Your task to perform on an android device: What's the weather going to be this weekend? Image 0: 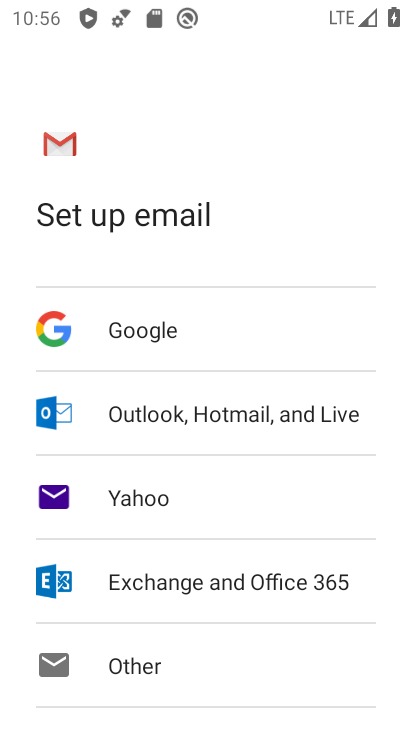
Step 0: press home button
Your task to perform on an android device: What's the weather going to be this weekend? Image 1: 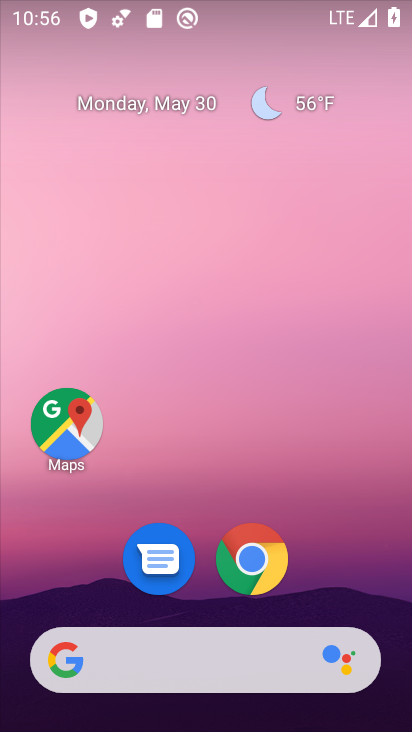
Step 1: drag from (375, 581) to (259, 66)
Your task to perform on an android device: What's the weather going to be this weekend? Image 2: 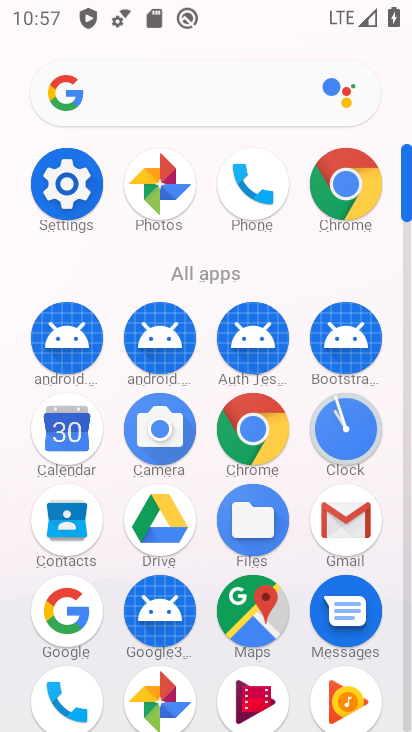
Step 2: click (72, 427)
Your task to perform on an android device: What's the weather going to be this weekend? Image 3: 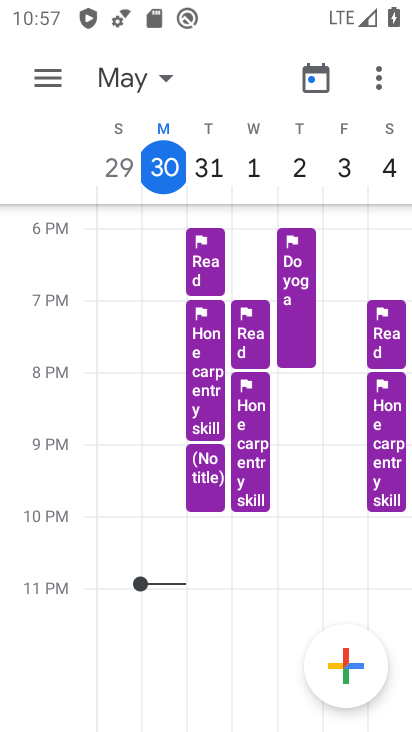
Step 3: press home button
Your task to perform on an android device: What's the weather going to be this weekend? Image 4: 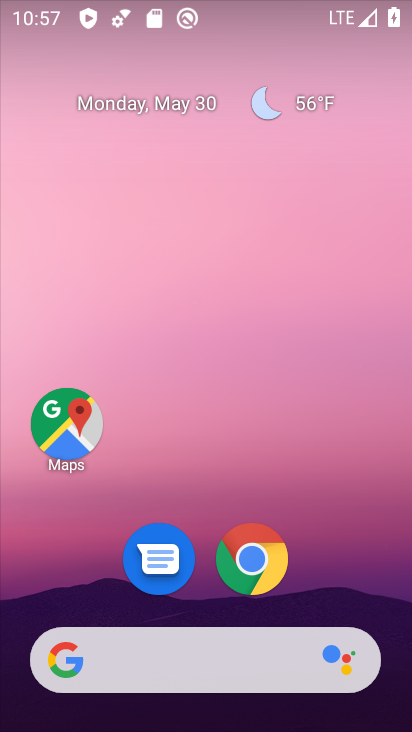
Step 4: click (272, 563)
Your task to perform on an android device: What's the weather going to be this weekend? Image 5: 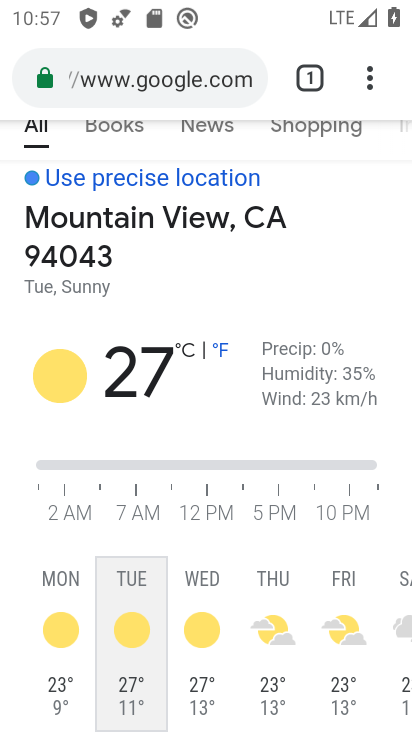
Step 5: click (212, 88)
Your task to perform on an android device: What's the weather going to be this weekend? Image 6: 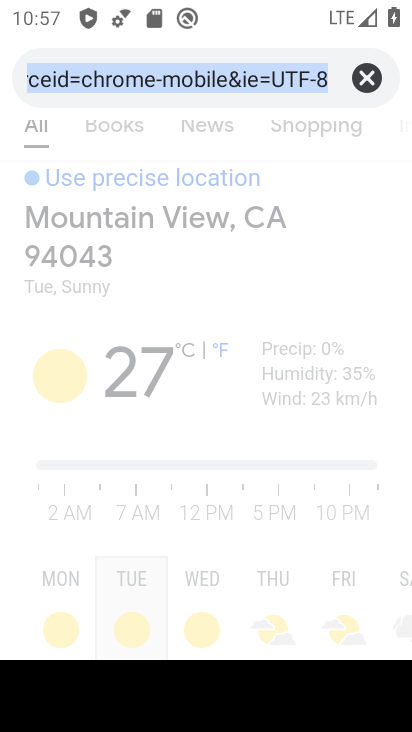
Step 6: type "What's the weather going to be this weekend?"
Your task to perform on an android device: What's the weather going to be this weekend? Image 7: 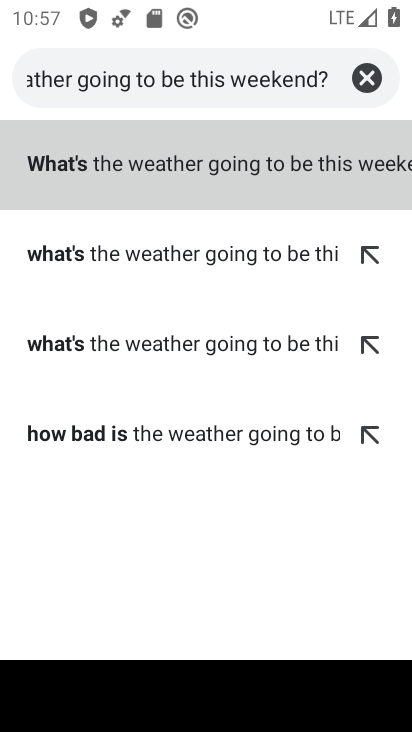
Step 7: click (383, 166)
Your task to perform on an android device: What's the weather going to be this weekend? Image 8: 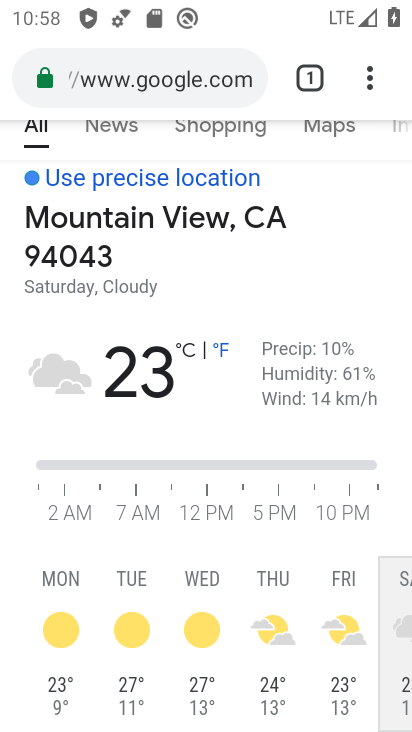
Step 8: task complete